Your task to perform on an android device: Open Yahoo.com Image 0: 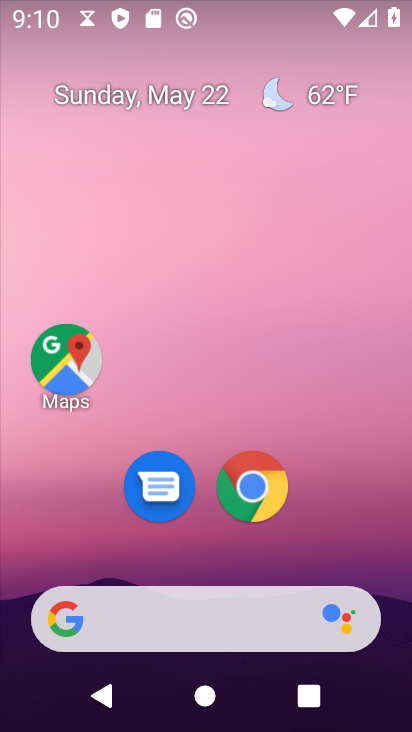
Step 0: press home button
Your task to perform on an android device: Open Yahoo.com Image 1: 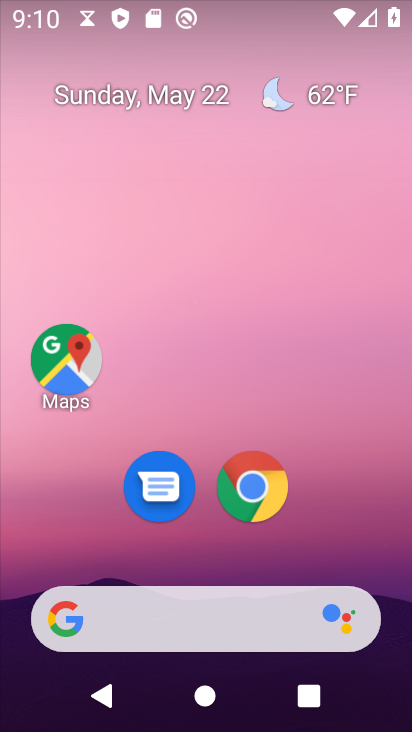
Step 1: click (254, 475)
Your task to perform on an android device: Open Yahoo.com Image 2: 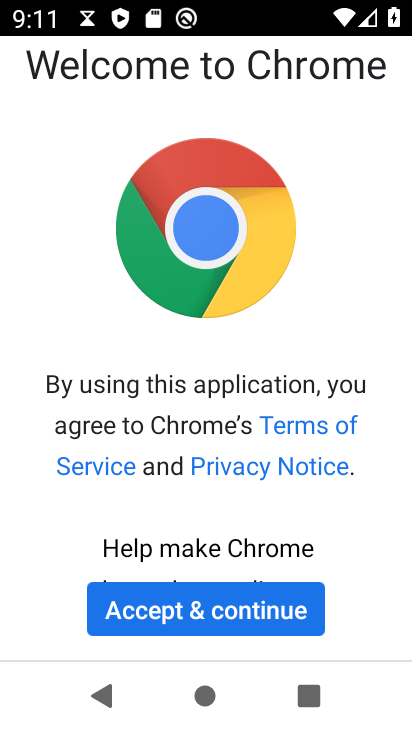
Step 2: click (197, 600)
Your task to perform on an android device: Open Yahoo.com Image 3: 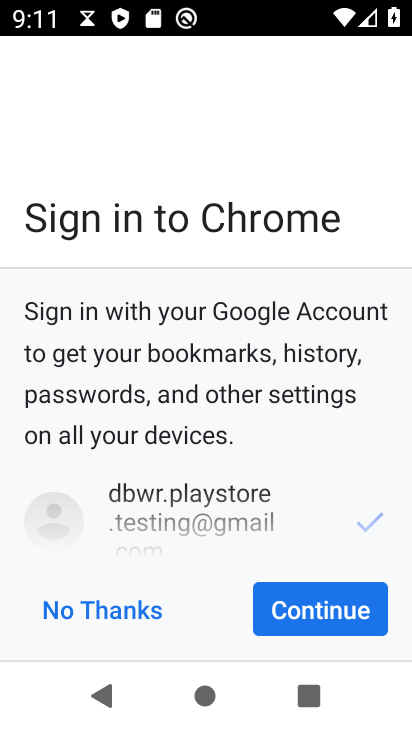
Step 3: click (323, 602)
Your task to perform on an android device: Open Yahoo.com Image 4: 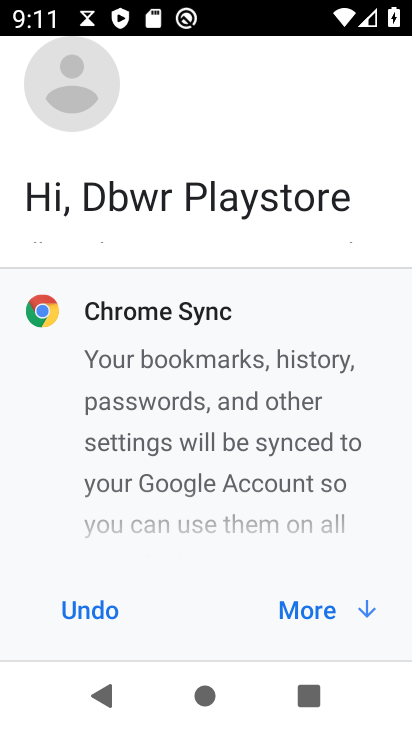
Step 4: click (321, 618)
Your task to perform on an android device: Open Yahoo.com Image 5: 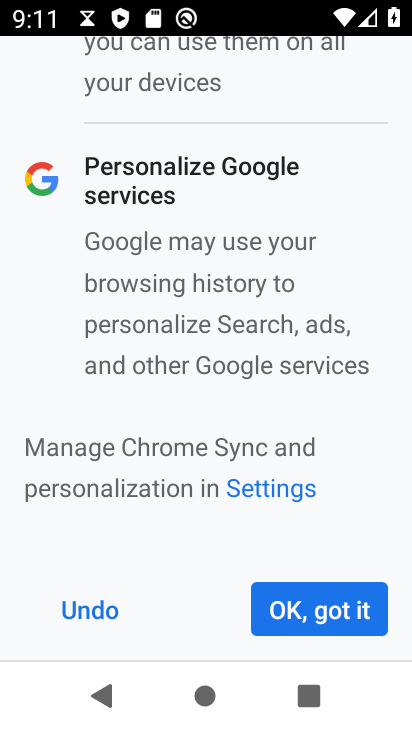
Step 5: click (321, 618)
Your task to perform on an android device: Open Yahoo.com Image 6: 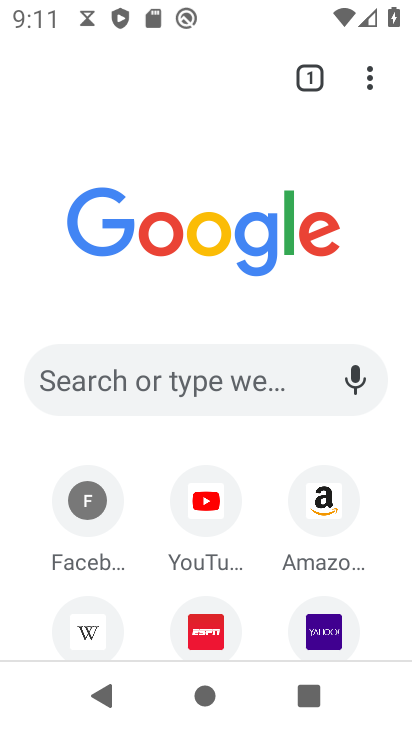
Step 6: click (333, 630)
Your task to perform on an android device: Open Yahoo.com Image 7: 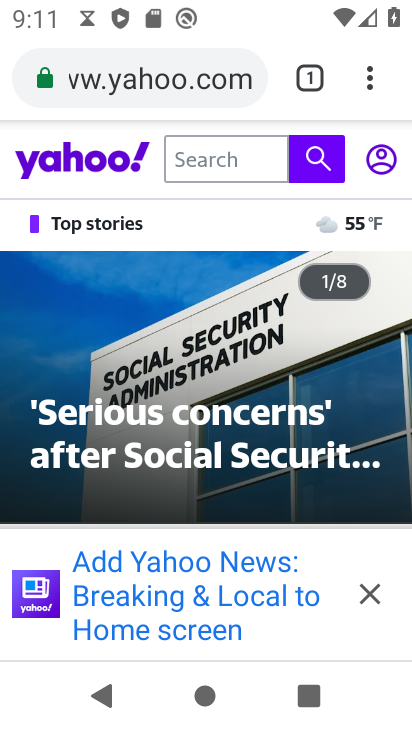
Step 7: drag from (211, 600) to (238, 219)
Your task to perform on an android device: Open Yahoo.com Image 8: 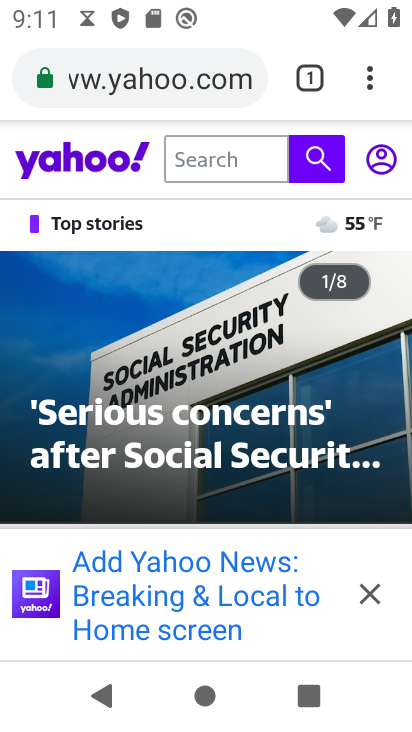
Step 8: click (374, 598)
Your task to perform on an android device: Open Yahoo.com Image 9: 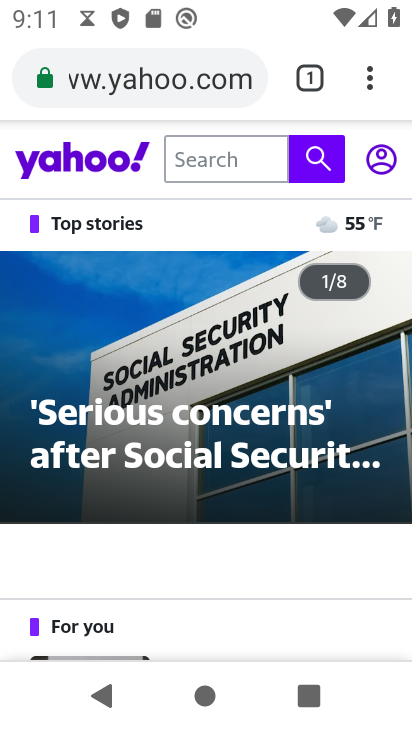
Step 9: task complete